Your task to perform on an android device: Go to Amazon Image 0: 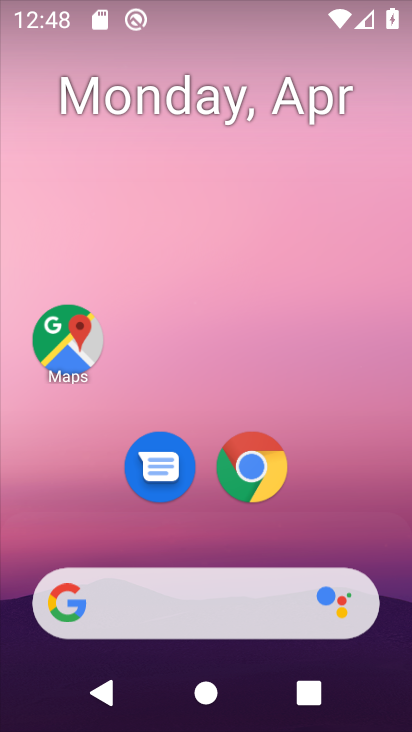
Step 0: click (253, 464)
Your task to perform on an android device: Go to Amazon Image 1: 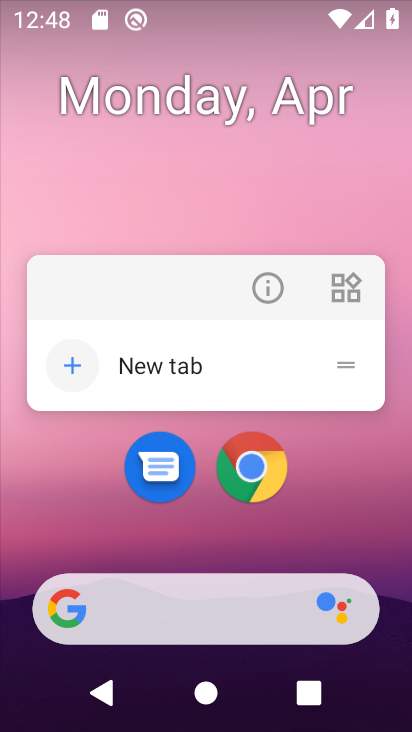
Step 1: click (253, 464)
Your task to perform on an android device: Go to Amazon Image 2: 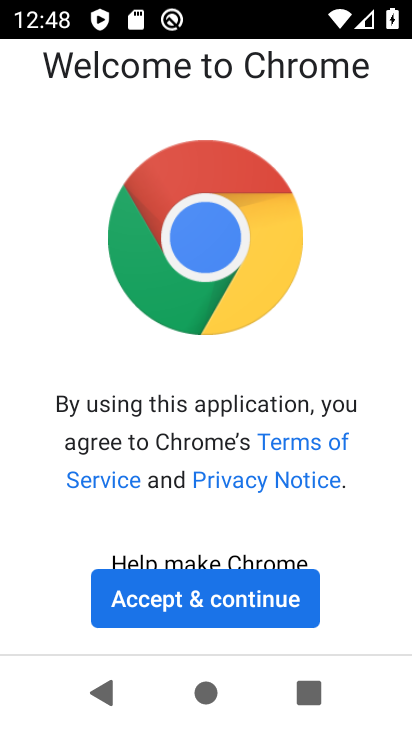
Step 2: click (253, 600)
Your task to perform on an android device: Go to Amazon Image 3: 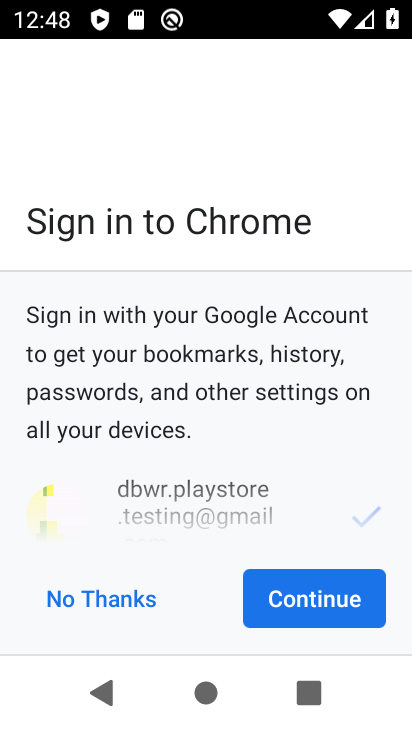
Step 3: click (286, 603)
Your task to perform on an android device: Go to Amazon Image 4: 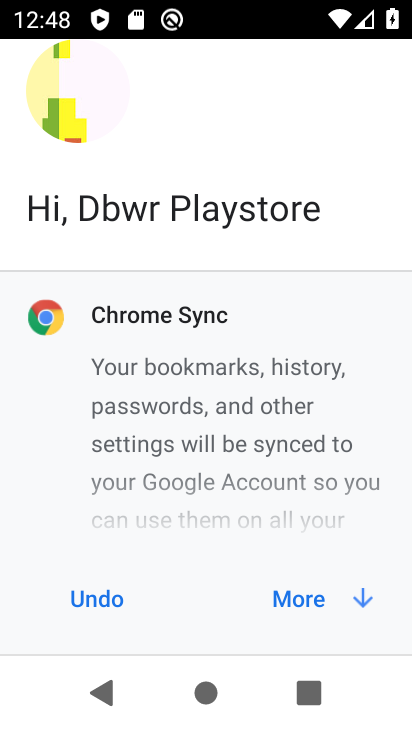
Step 4: click (286, 603)
Your task to perform on an android device: Go to Amazon Image 5: 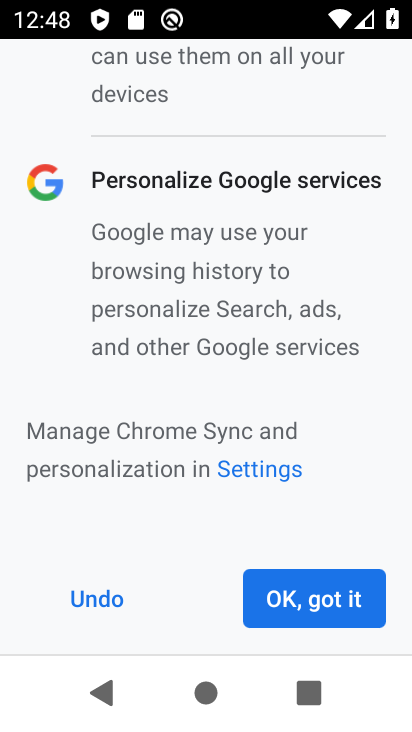
Step 5: click (286, 603)
Your task to perform on an android device: Go to Amazon Image 6: 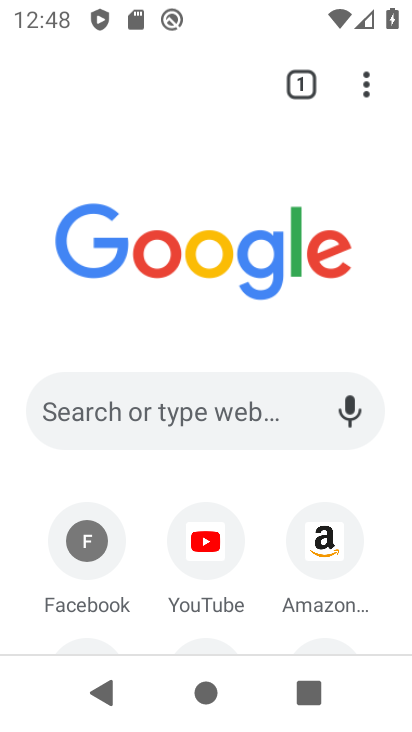
Step 6: click (322, 542)
Your task to perform on an android device: Go to Amazon Image 7: 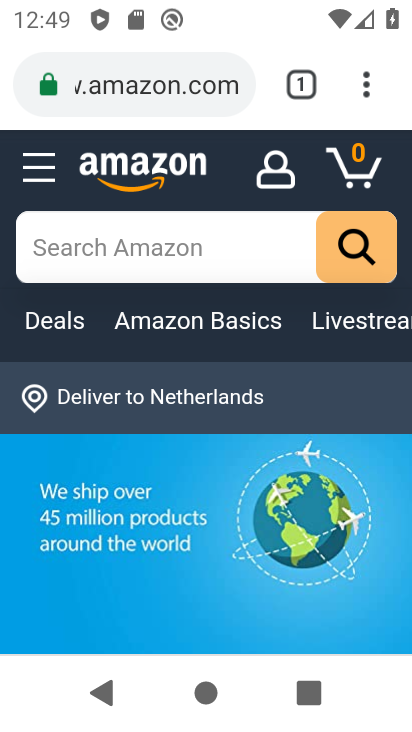
Step 7: task complete